Your task to perform on an android device: Is it going to rain tomorrow? Image 0: 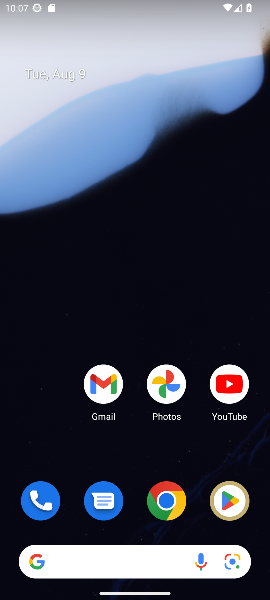
Step 0: click (102, 557)
Your task to perform on an android device: Is it going to rain tomorrow? Image 1: 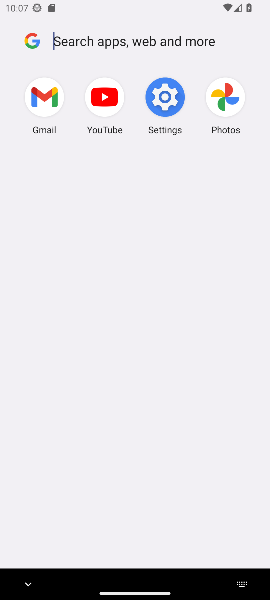
Step 1: type "weather"
Your task to perform on an android device: Is it going to rain tomorrow? Image 2: 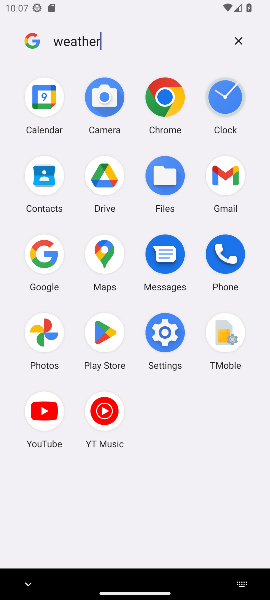
Step 2: click (44, 266)
Your task to perform on an android device: Is it going to rain tomorrow? Image 3: 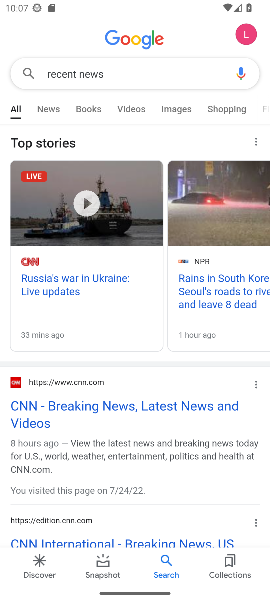
Step 3: task complete